Your task to perform on an android device: Show the shopping cart on target.com. Search for dell xps on target.com, select the first entry, and add it to the cart. Image 0: 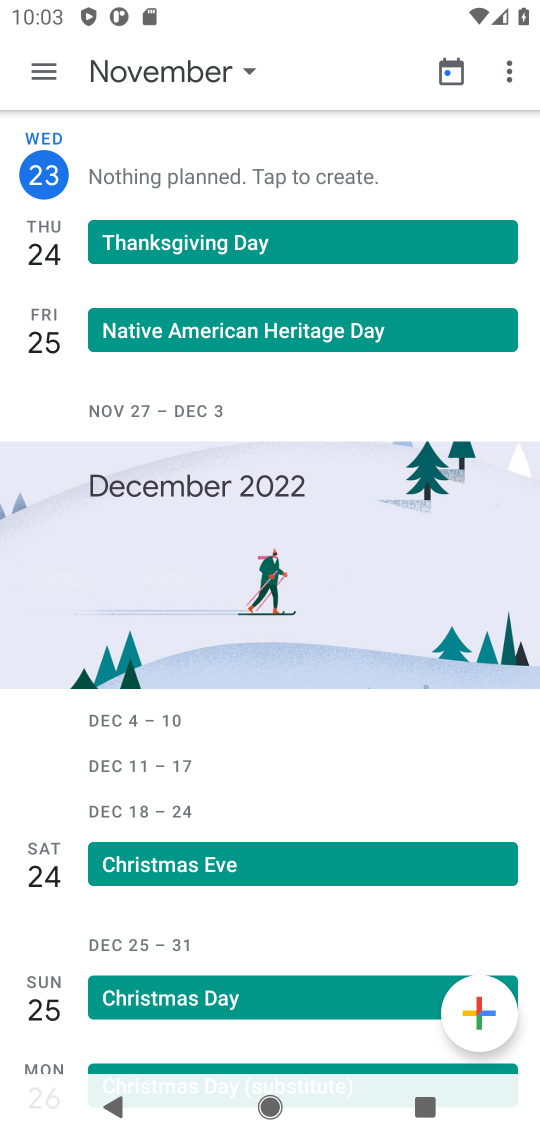
Step 0: press home button
Your task to perform on an android device: Show the shopping cart on target.com. Search for dell xps on target.com, select the first entry, and add it to the cart. Image 1: 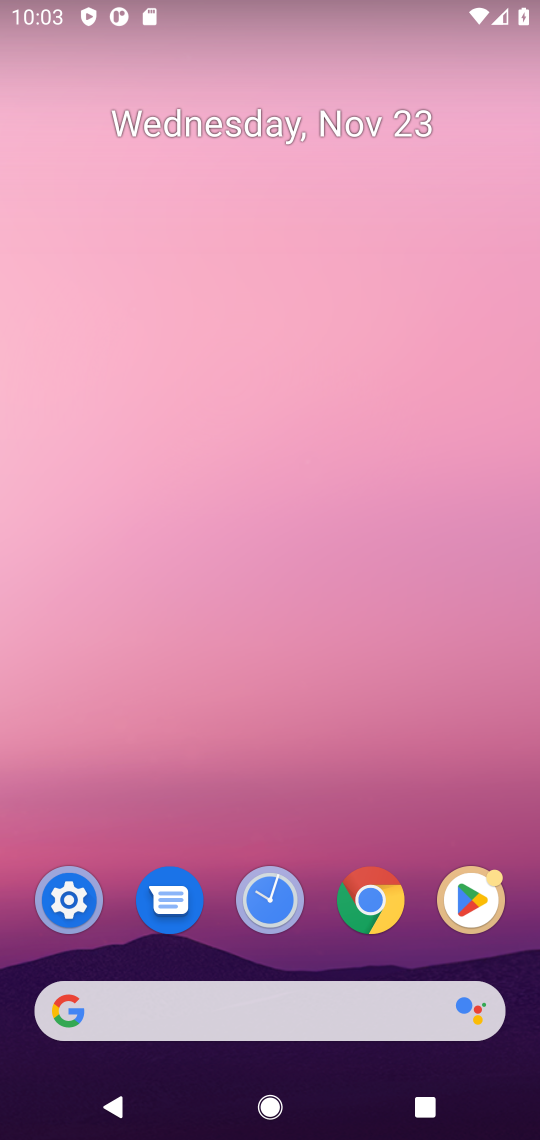
Step 1: click (275, 991)
Your task to perform on an android device: Show the shopping cart on target.com. Search for dell xps on target.com, select the first entry, and add it to the cart. Image 2: 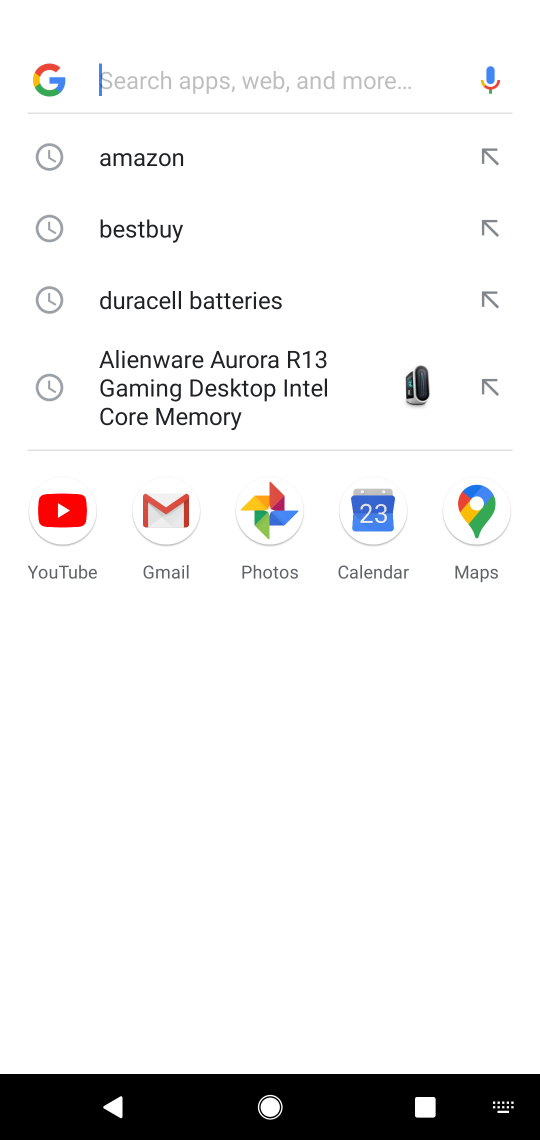
Step 2: type "target.com"
Your task to perform on an android device: Show the shopping cart on target.com. Search for dell xps on target.com, select the first entry, and add it to the cart. Image 3: 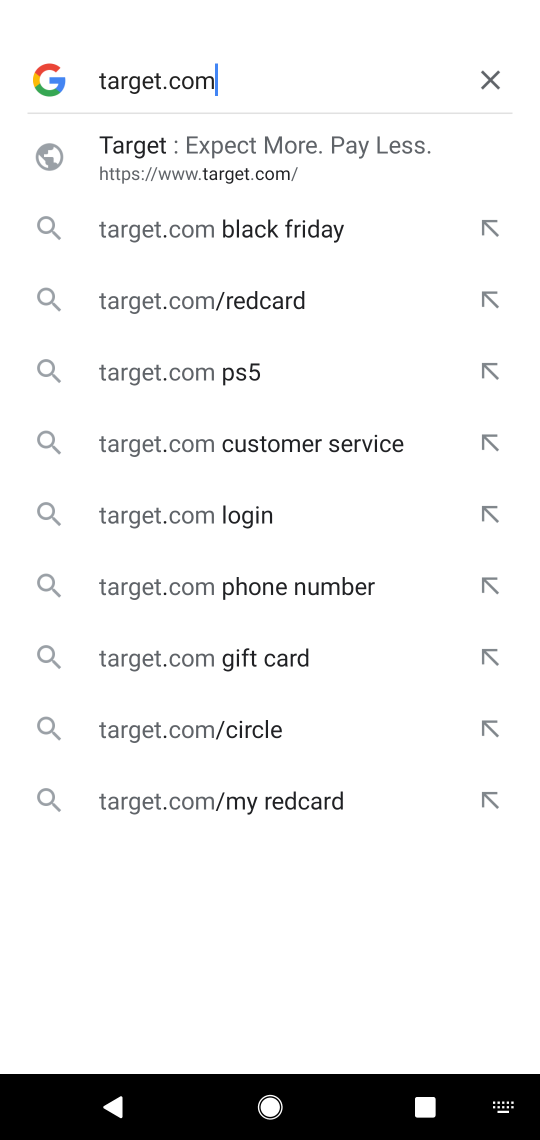
Step 3: click (191, 151)
Your task to perform on an android device: Show the shopping cart on target.com. Search for dell xps on target.com, select the first entry, and add it to the cart. Image 4: 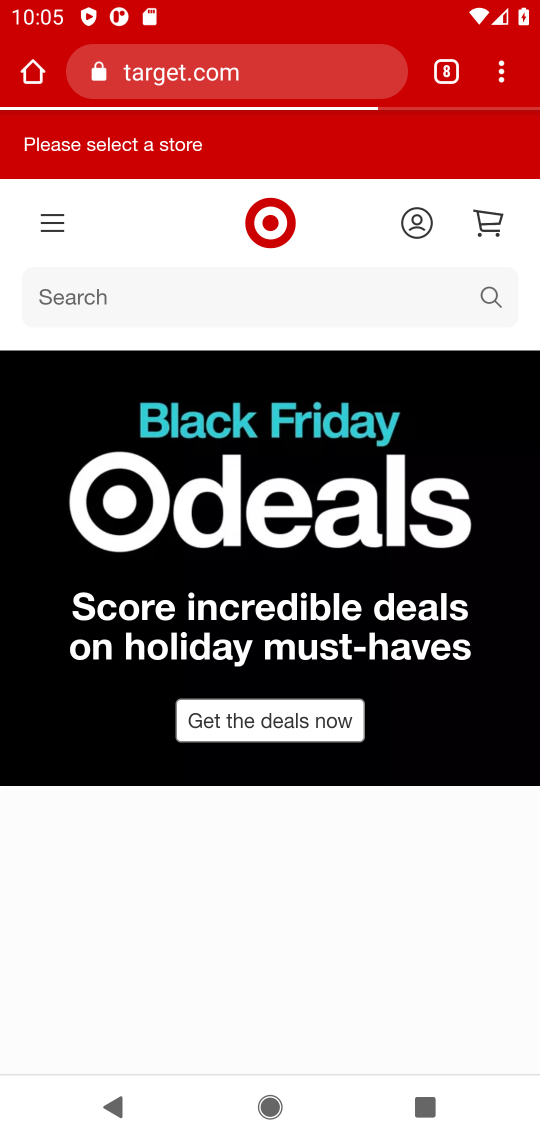
Step 4: task complete